Your task to perform on an android device: turn off translation in the chrome app Image 0: 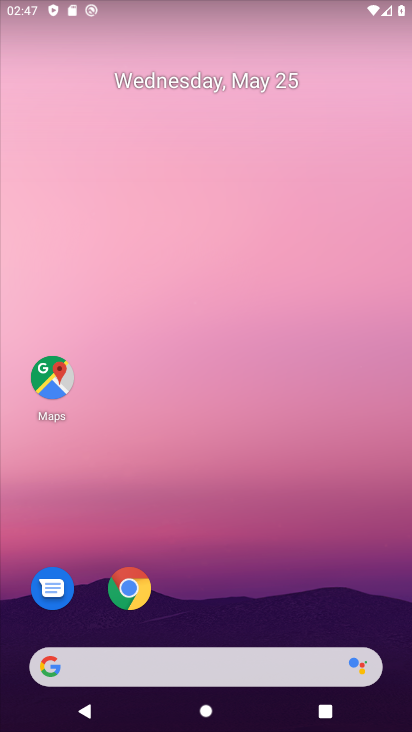
Step 0: click (149, 587)
Your task to perform on an android device: turn off translation in the chrome app Image 1: 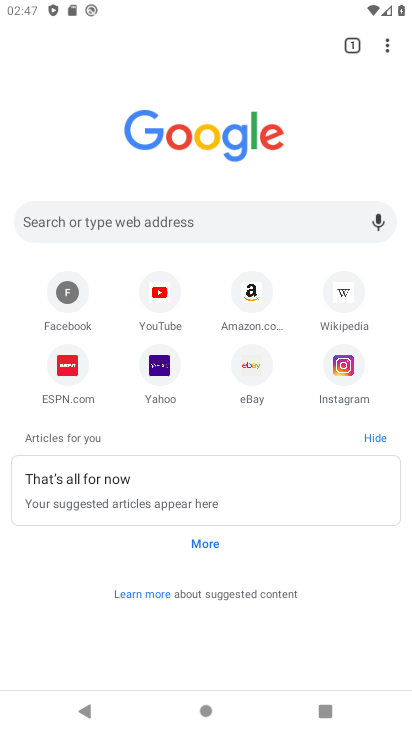
Step 1: drag from (388, 50) to (311, 372)
Your task to perform on an android device: turn off translation in the chrome app Image 2: 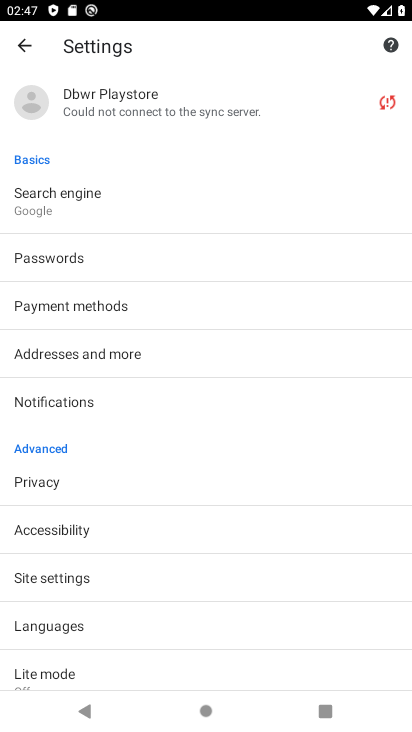
Step 2: click (102, 619)
Your task to perform on an android device: turn off translation in the chrome app Image 3: 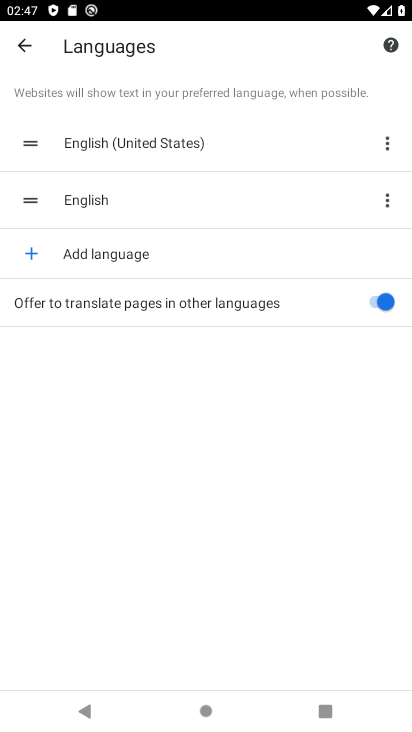
Step 3: click (154, 291)
Your task to perform on an android device: turn off translation in the chrome app Image 4: 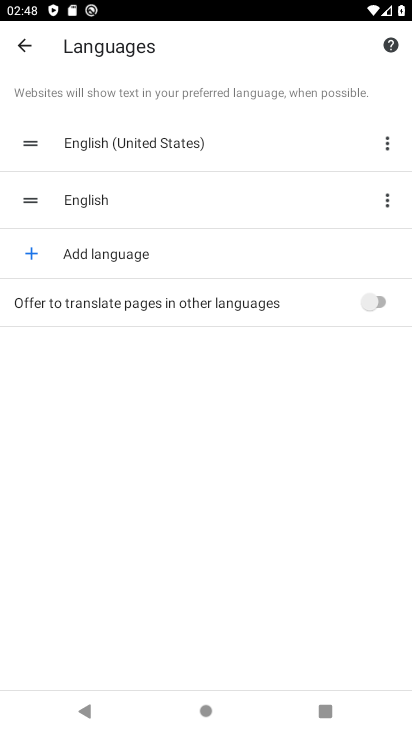
Step 4: task complete